Your task to perform on an android device: Open Amazon Image 0: 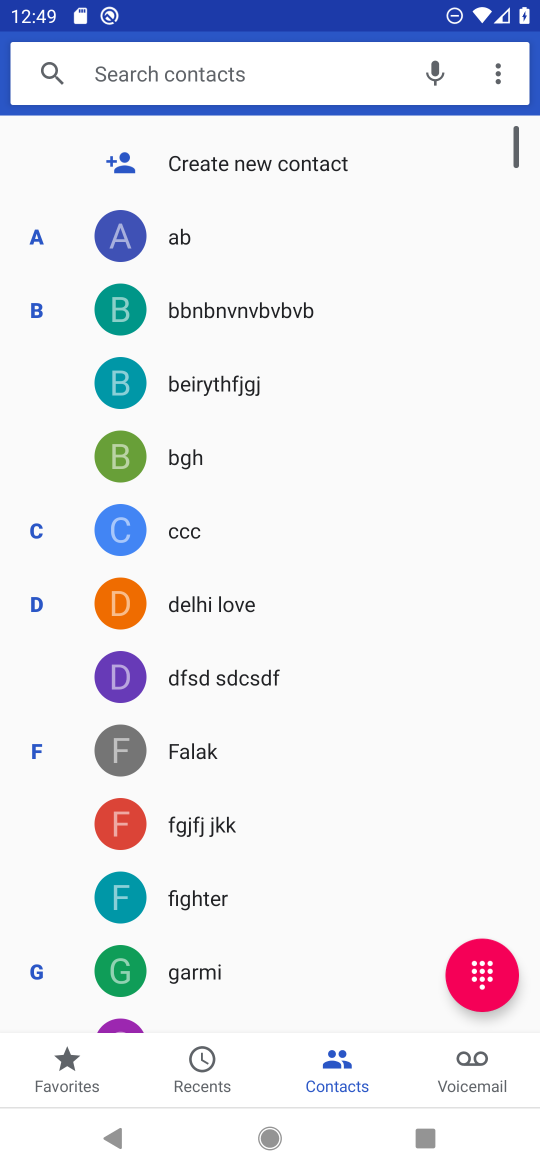
Step 0: press home button
Your task to perform on an android device: Open Amazon Image 1: 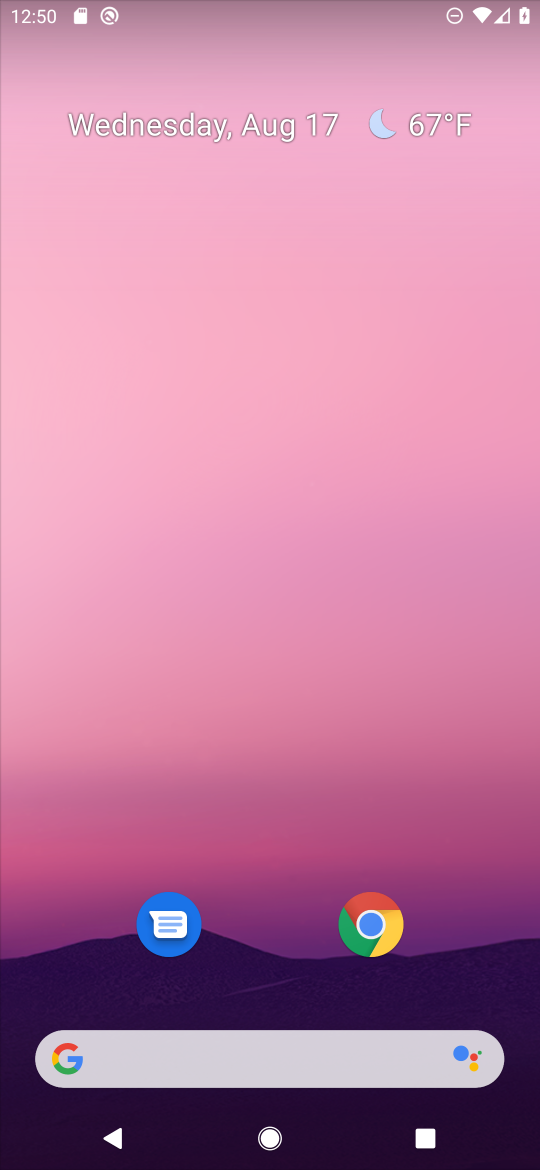
Step 1: click (364, 929)
Your task to perform on an android device: Open Amazon Image 2: 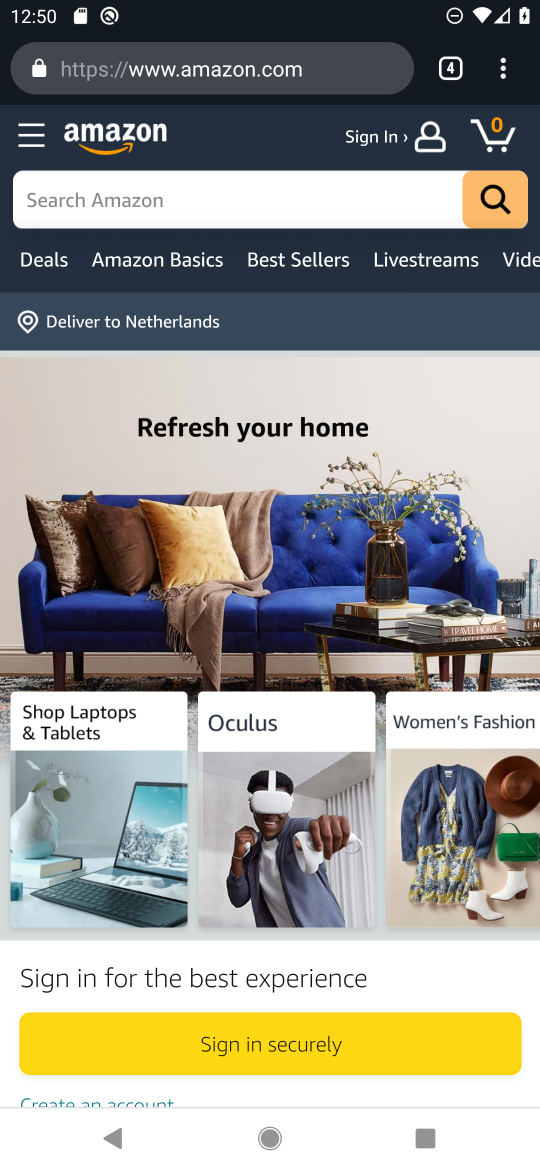
Step 2: task complete